Your task to perform on an android device: move an email to a new category in the gmail app Image 0: 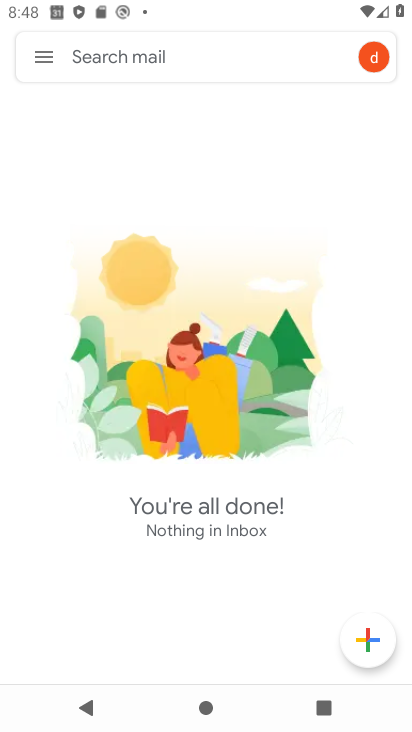
Step 0: press home button
Your task to perform on an android device: move an email to a new category in the gmail app Image 1: 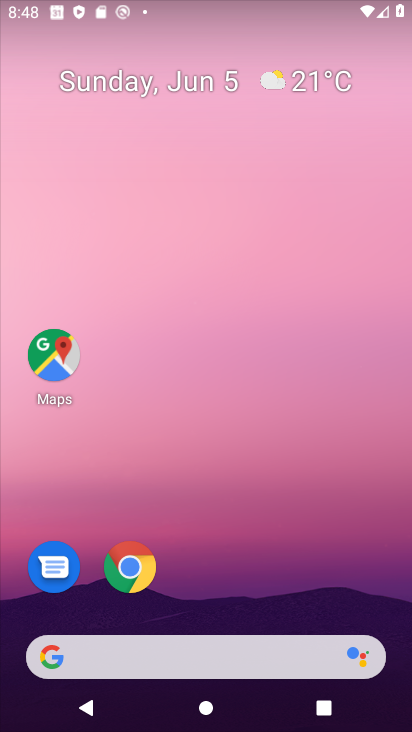
Step 1: drag from (162, 637) to (191, 357)
Your task to perform on an android device: move an email to a new category in the gmail app Image 2: 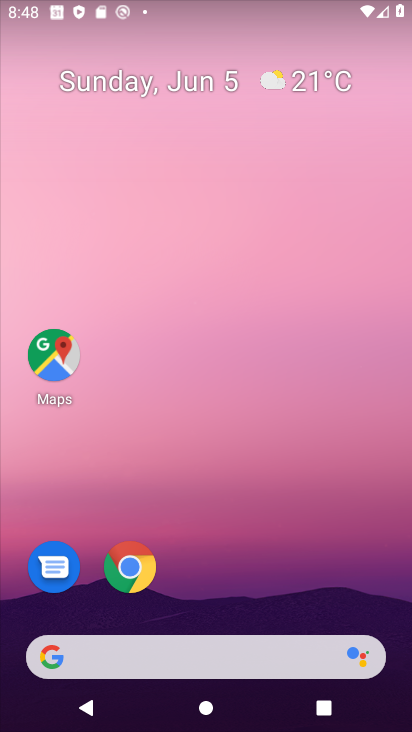
Step 2: drag from (198, 548) to (239, 274)
Your task to perform on an android device: move an email to a new category in the gmail app Image 3: 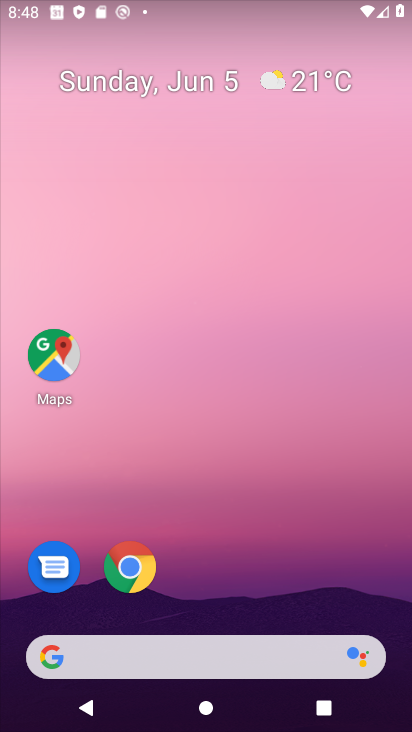
Step 3: drag from (261, 632) to (262, 312)
Your task to perform on an android device: move an email to a new category in the gmail app Image 4: 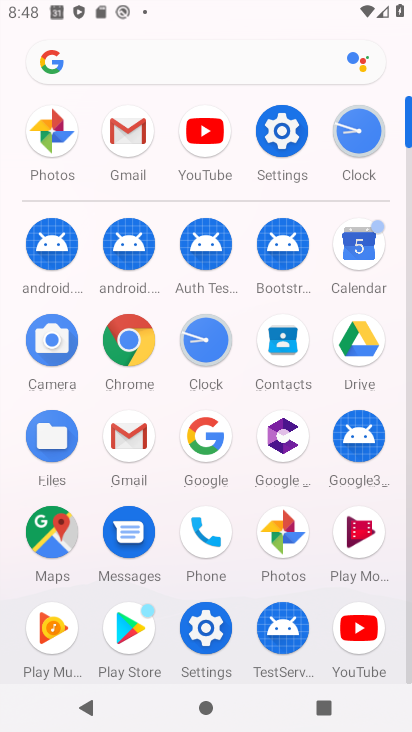
Step 4: click (120, 143)
Your task to perform on an android device: move an email to a new category in the gmail app Image 5: 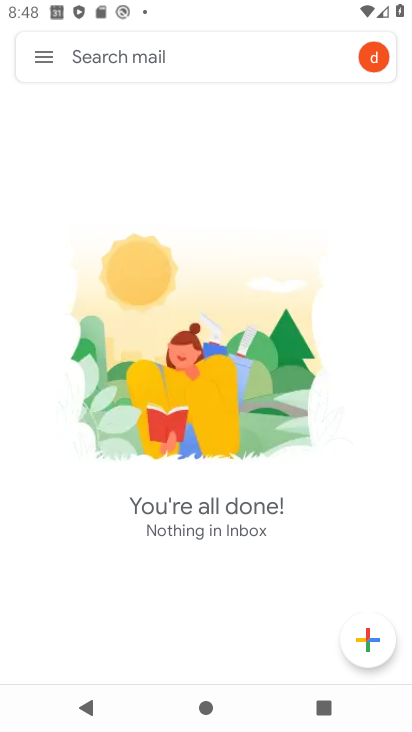
Step 5: task complete